Your task to perform on an android device: allow cookies in the chrome app Image 0: 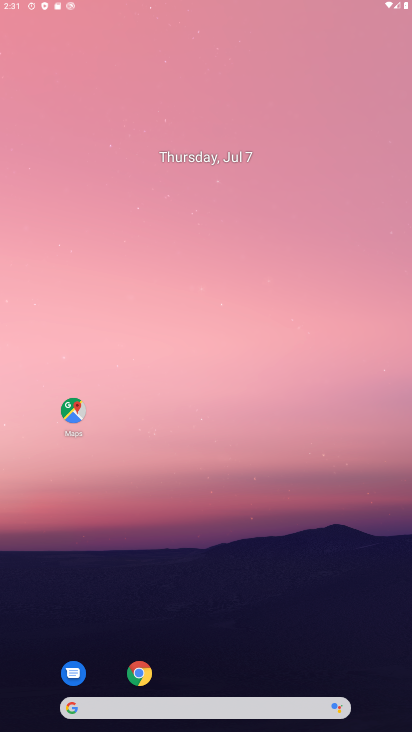
Step 0: drag from (169, 675) to (169, 73)
Your task to perform on an android device: allow cookies in the chrome app Image 1: 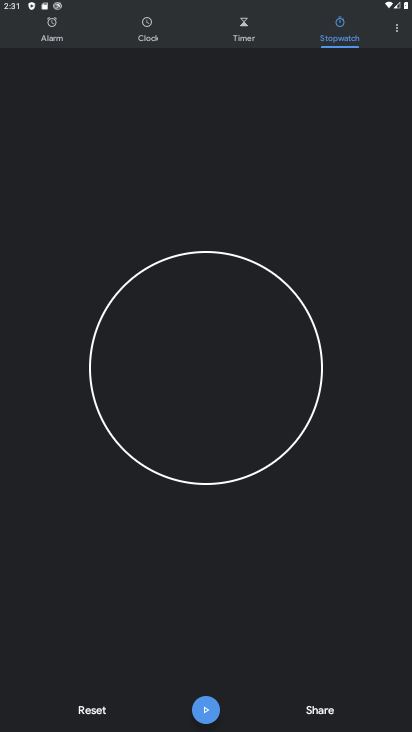
Step 1: press home button
Your task to perform on an android device: allow cookies in the chrome app Image 2: 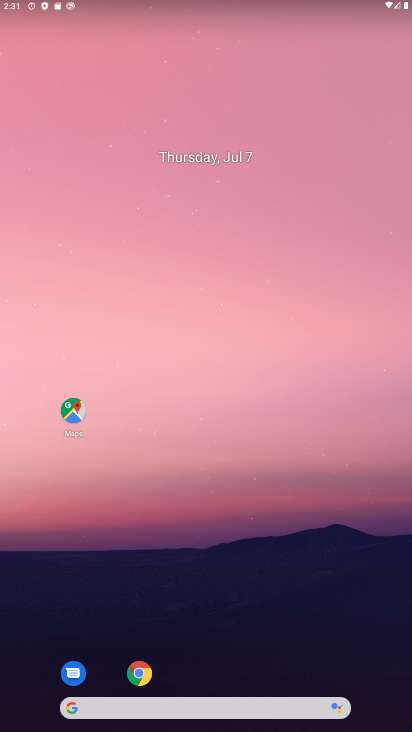
Step 2: drag from (229, 666) to (235, 44)
Your task to perform on an android device: allow cookies in the chrome app Image 3: 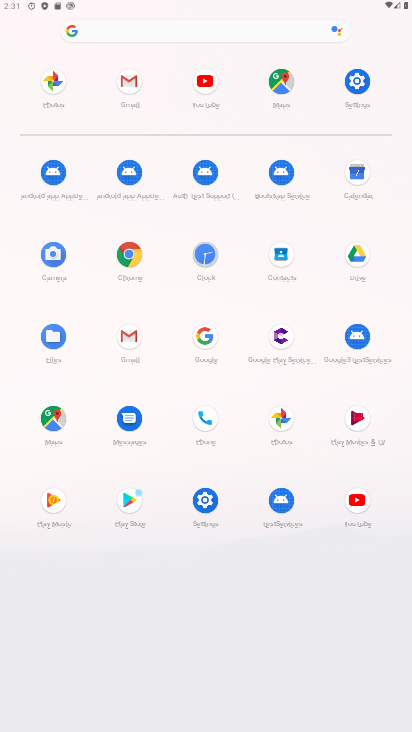
Step 3: click (136, 269)
Your task to perform on an android device: allow cookies in the chrome app Image 4: 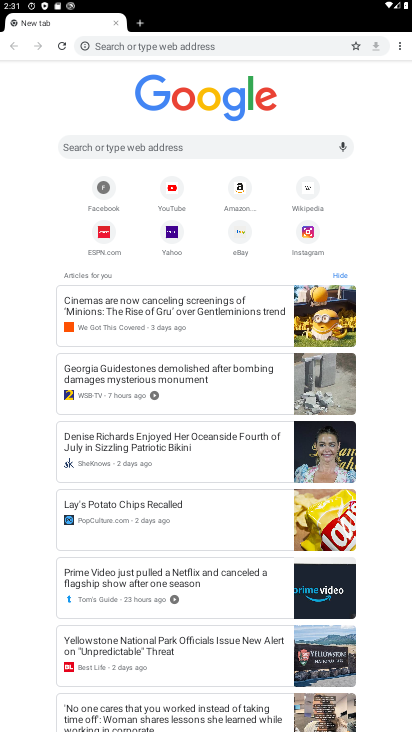
Step 4: click (399, 48)
Your task to perform on an android device: allow cookies in the chrome app Image 5: 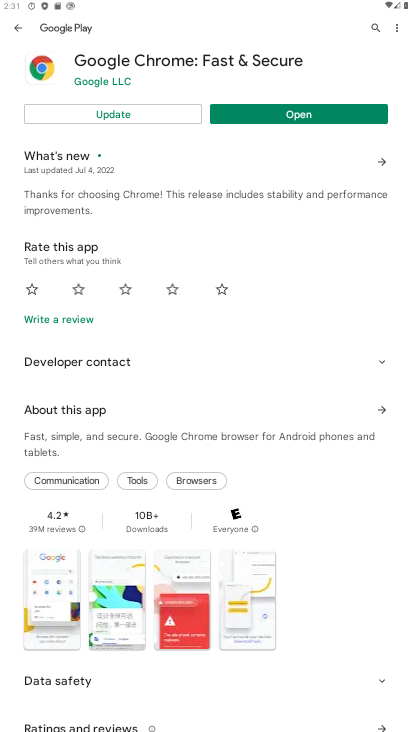
Step 5: click (20, 30)
Your task to perform on an android device: allow cookies in the chrome app Image 6: 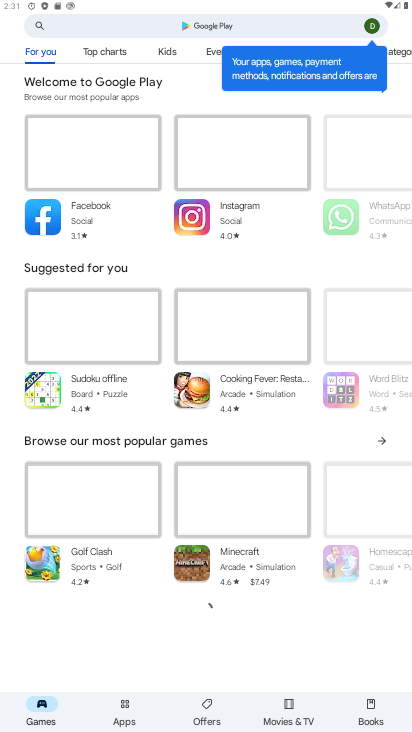
Step 6: task complete